Your task to perform on an android device: toggle show notifications on the lock screen Image 0: 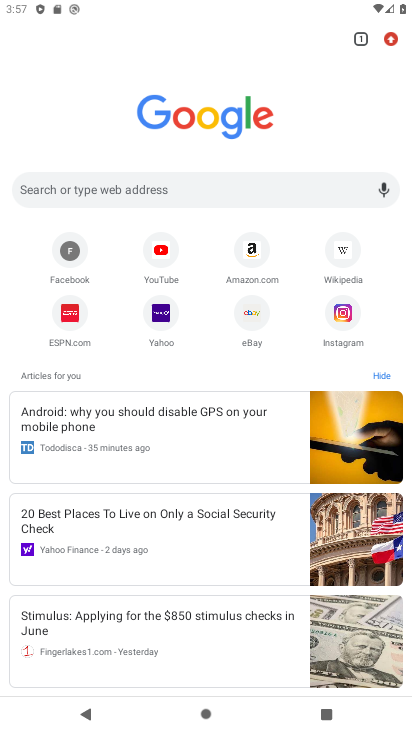
Step 0: press home button
Your task to perform on an android device: toggle show notifications on the lock screen Image 1: 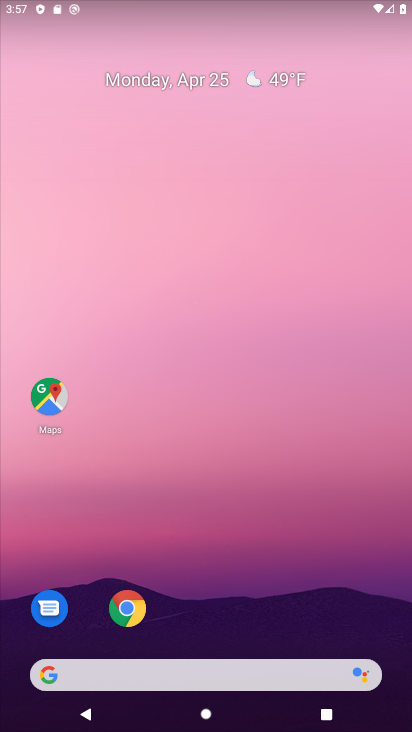
Step 1: drag from (284, 593) to (335, 162)
Your task to perform on an android device: toggle show notifications on the lock screen Image 2: 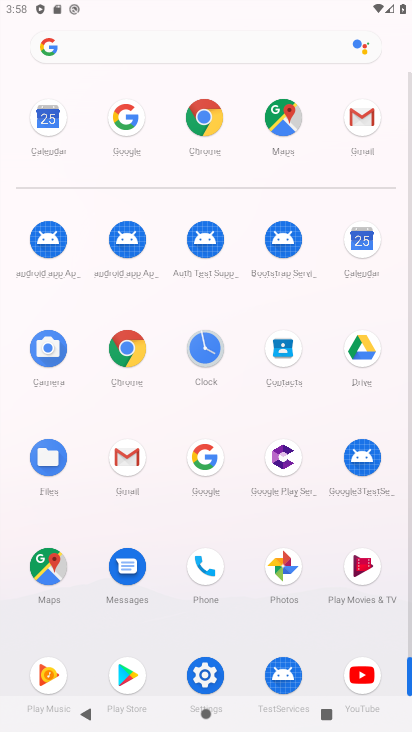
Step 2: drag from (264, 506) to (292, 225)
Your task to perform on an android device: toggle show notifications on the lock screen Image 3: 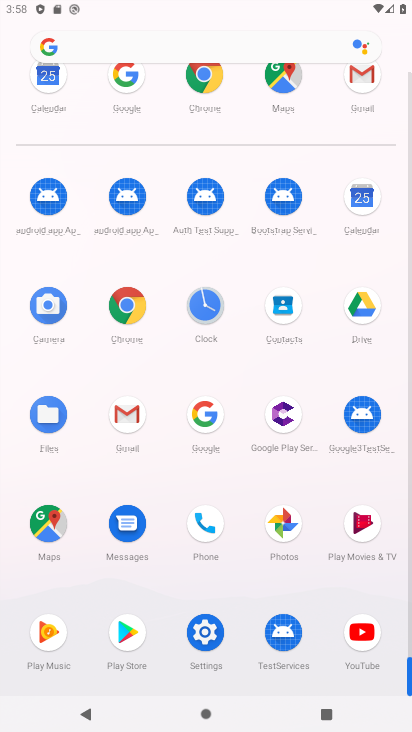
Step 3: click (211, 647)
Your task to perform on an android device: toggle show notifications on the lock screen Image 4: 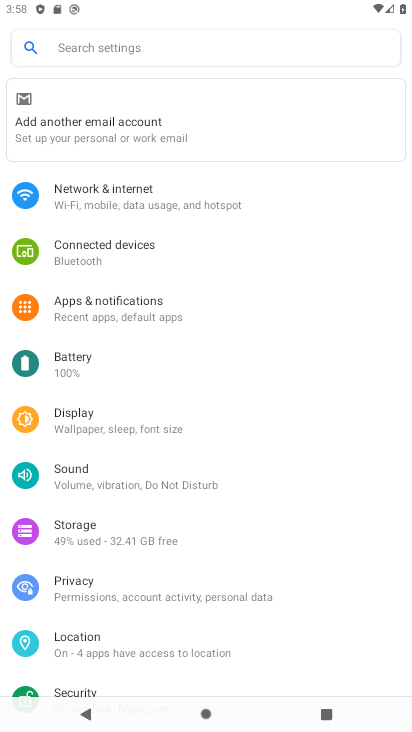
Step 4: click (158, 309)
Your task to perform on an android device: toggle show notifications on the lock screen Image 5: 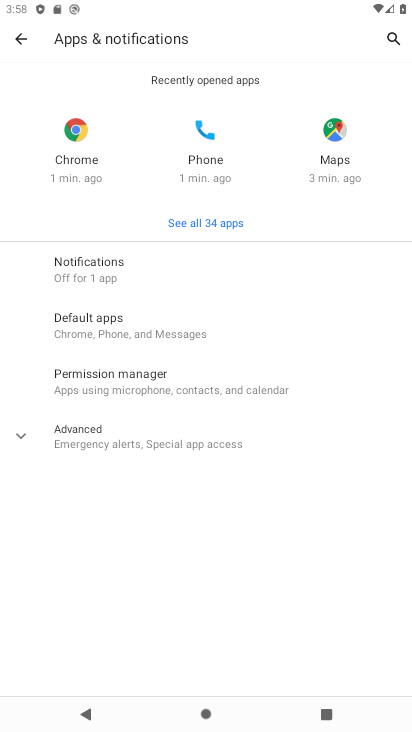
Step 5: click (147, 269)
Your task to perform on an android device: toggle show notifications on the lock screen Image 6: 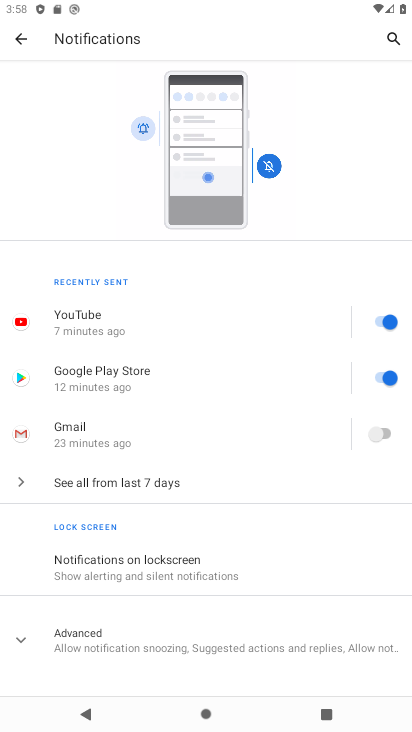
Step 6: click (171, 554)
Your task to perform on an android device: toggle show notifications on the lock screen Image 7: 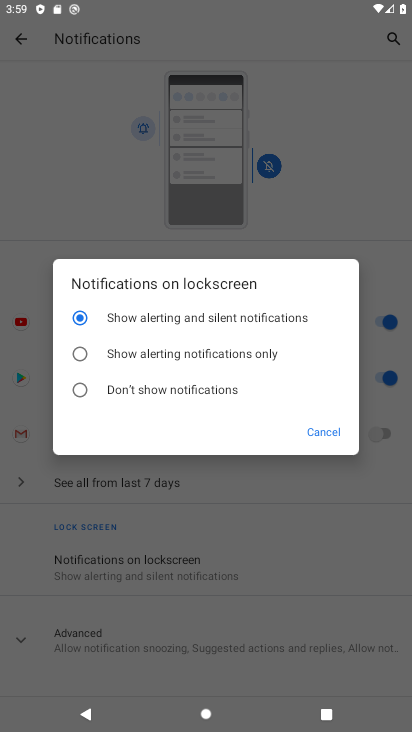
Step 7: click (188, 394)
Your task to perform on an android device: toggle show notifications on the lock screen Image 8: 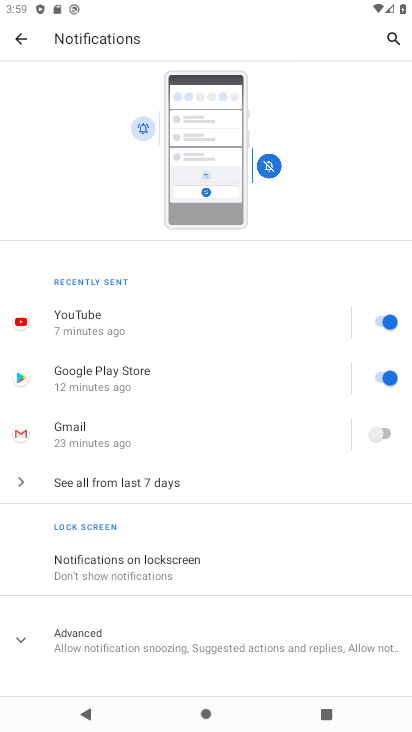
Step 8: task complete